Your task to perform on an android device: allow notifications from all sites in the chrome app Image 0: 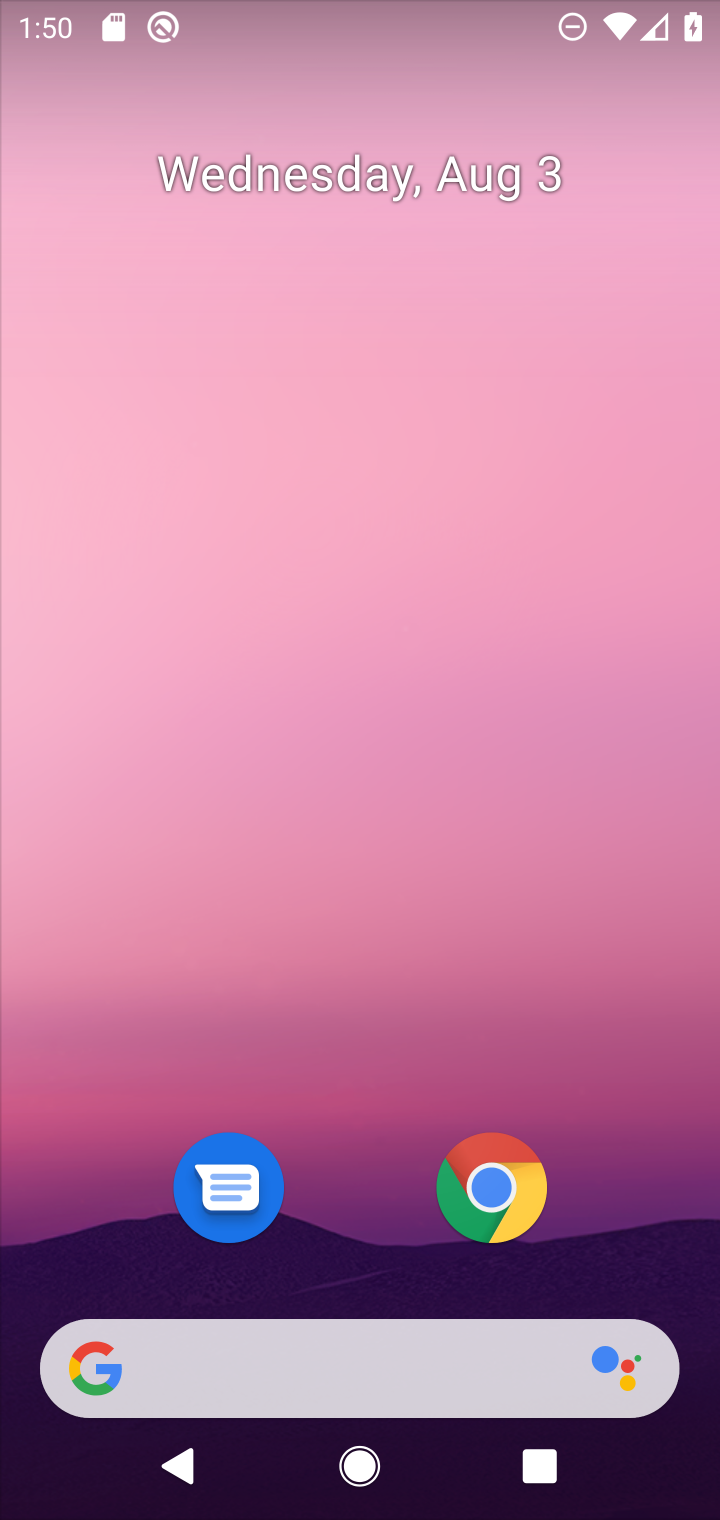
Step 0: drag from (417, 1053) to (465, 392)
Your task to perform on an android device: allow notifications from all sites in the chrome app Image 1: 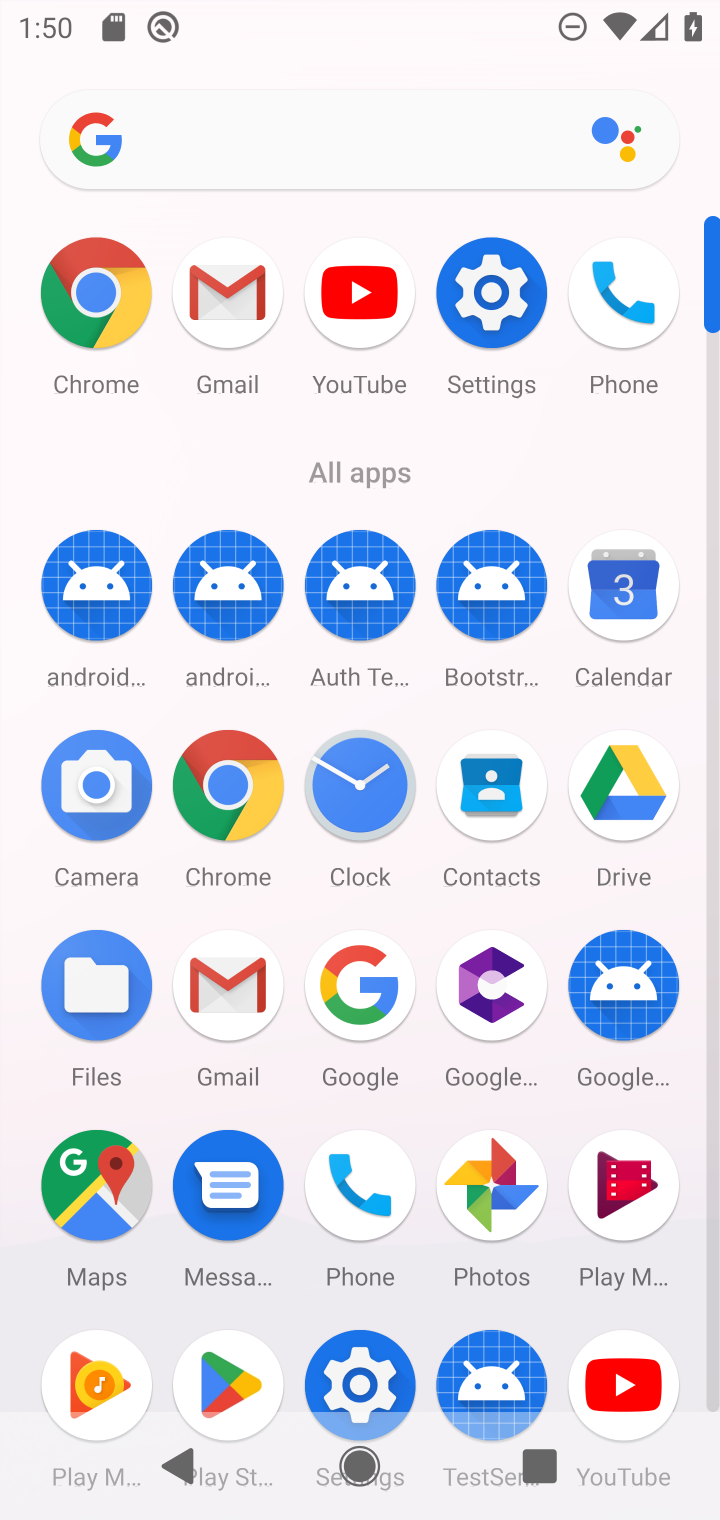
Step 1: click (239, 787)
Your task to perform on an android device: allow notifications from all sites in the chrome app Image 2: 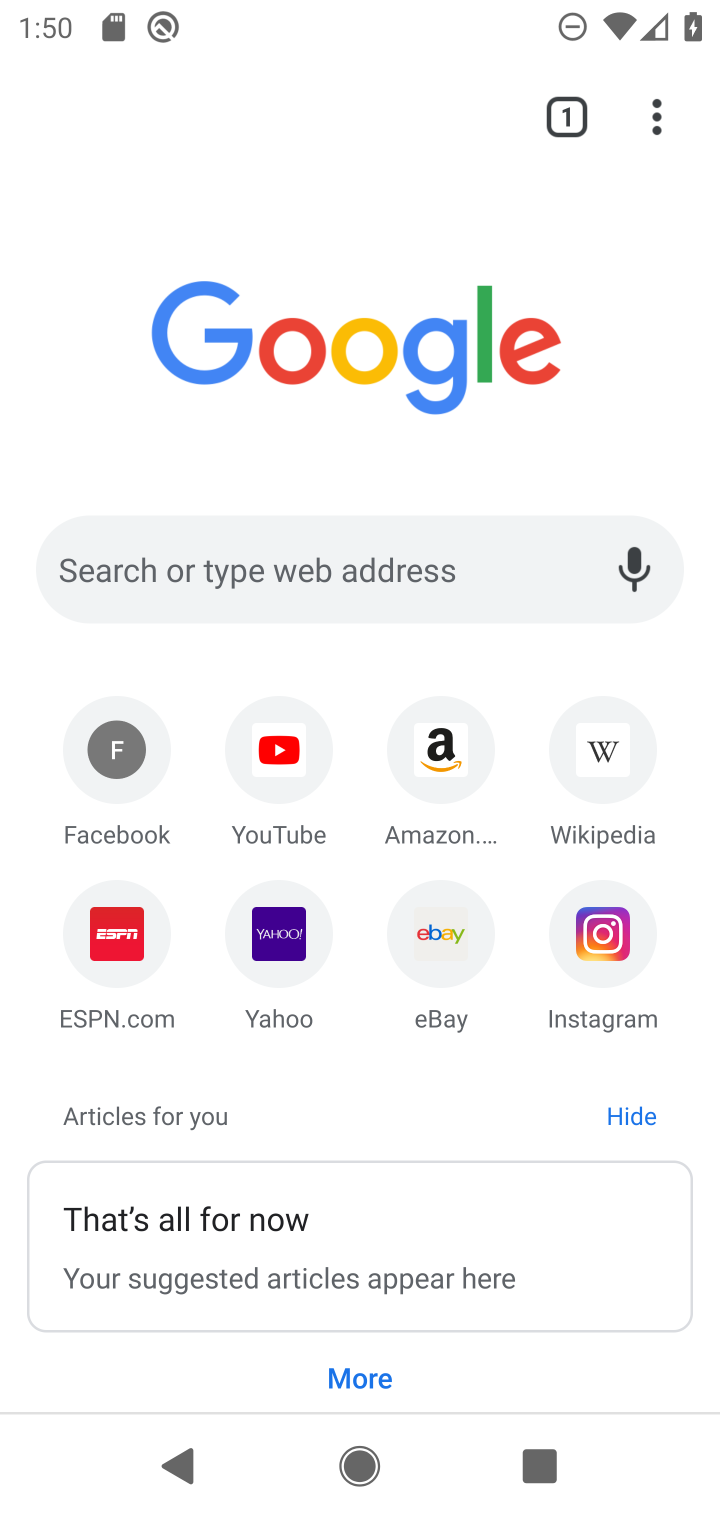
Step 2: click (647, 124)
Your task to perform on an android device: allow notifications from all sites in the chrome app Image 3: 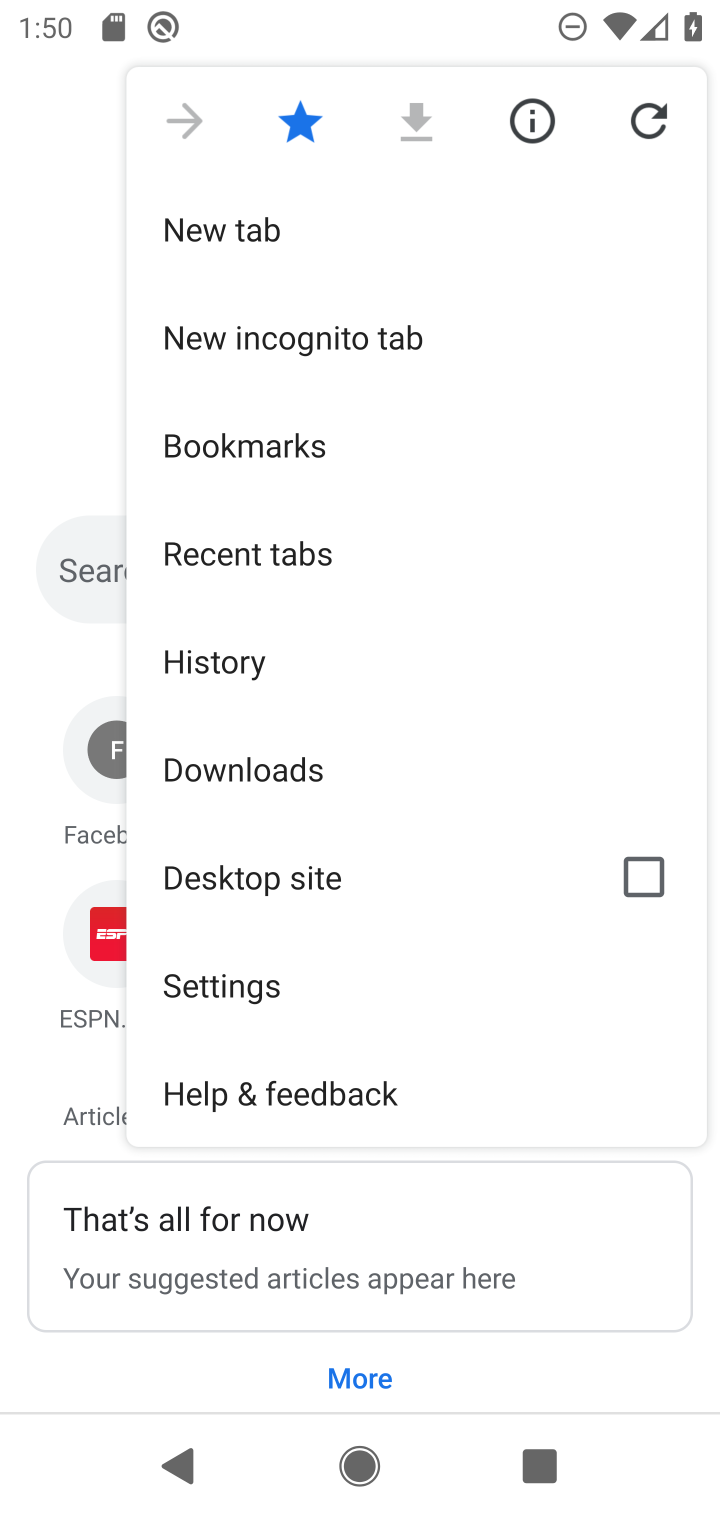
Step 3: click (253, 986)
Your task to perform on an android device: allow notifications from all sites in the chrome app Image 4: 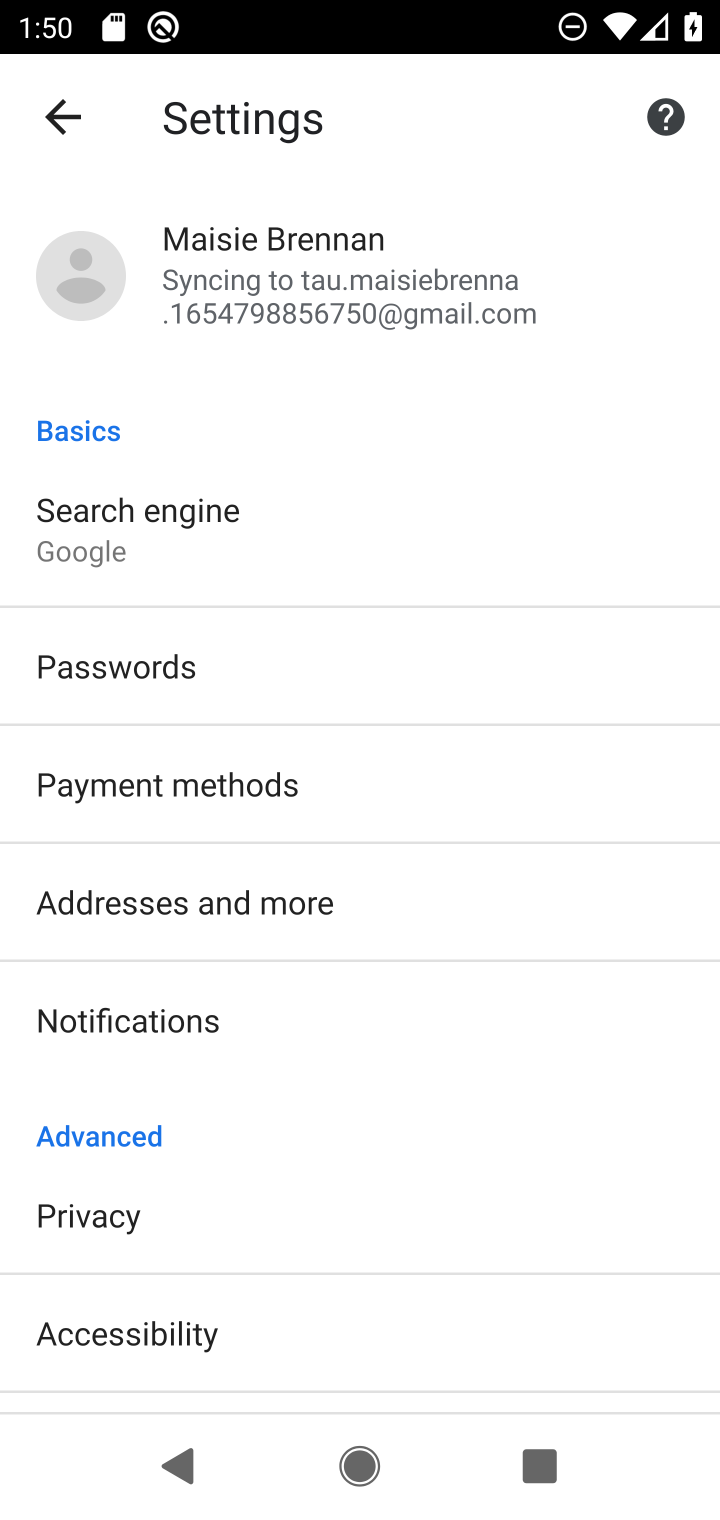
Step 4: click (174, 1003)
Your task to perform on an android device: allow notifications from all sites in the chrome app Image 5: 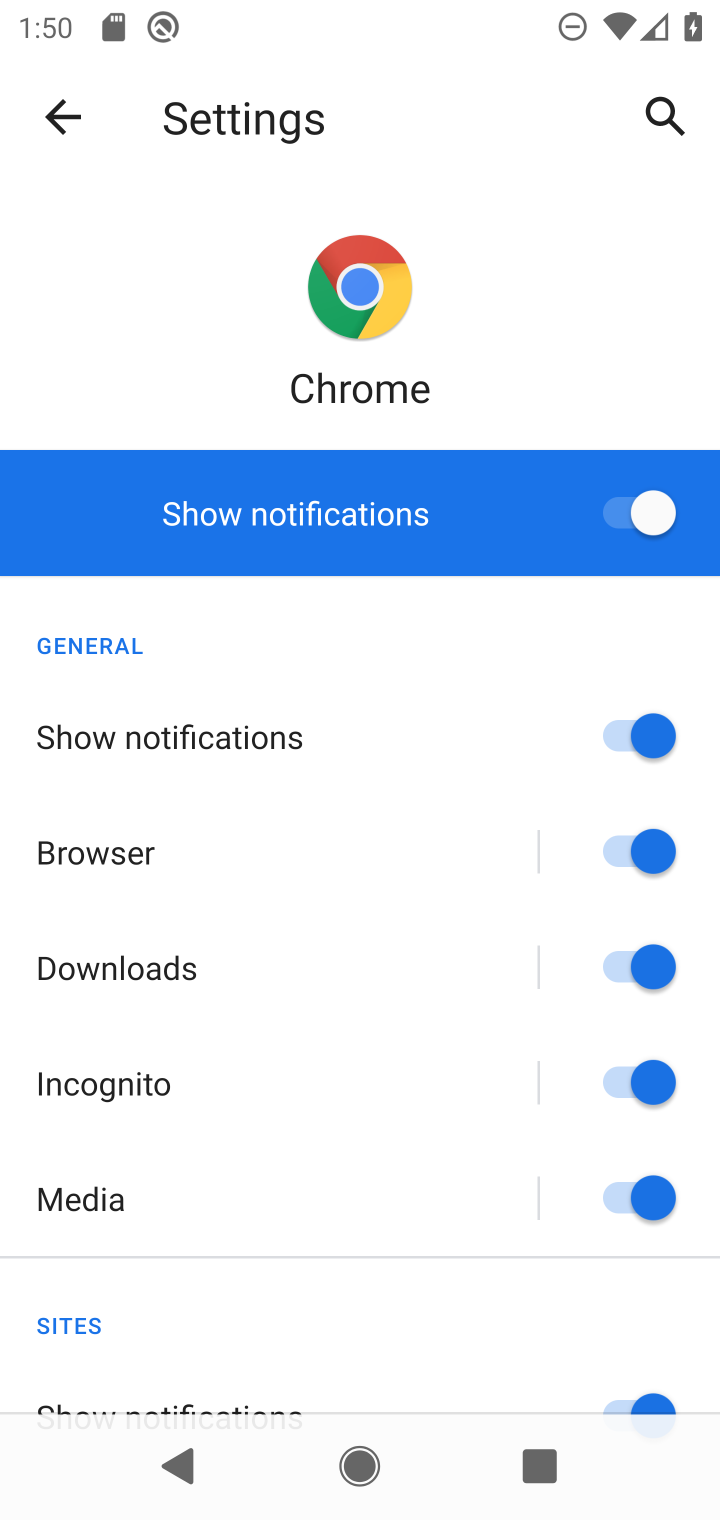
Step 5: task complete